Your task to perform on an android device: Show me popular videos on Youtube Image 0: 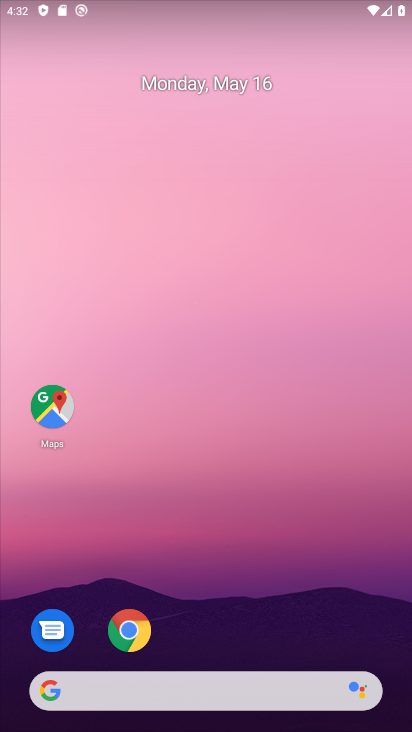
Step 0: drag from (258, 591) to (339, 55)
Your task to perform on an android device: Show me popular videos on Youtube Image 1: 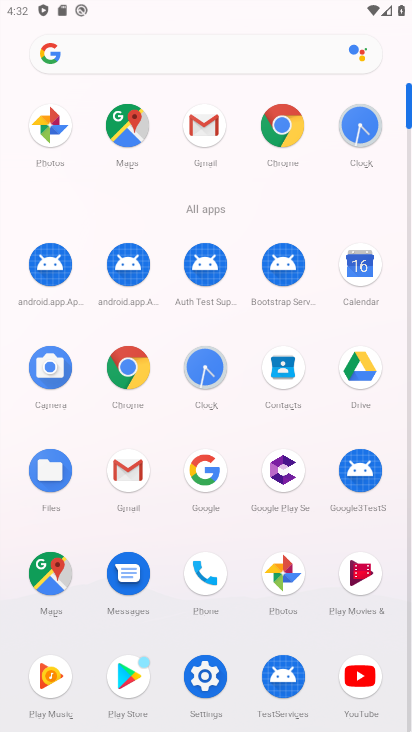
Step 1: drag from (327, 643) to (329, 500)
Your task to perform on an android device: Show me popular videos on Youtube Image 2: 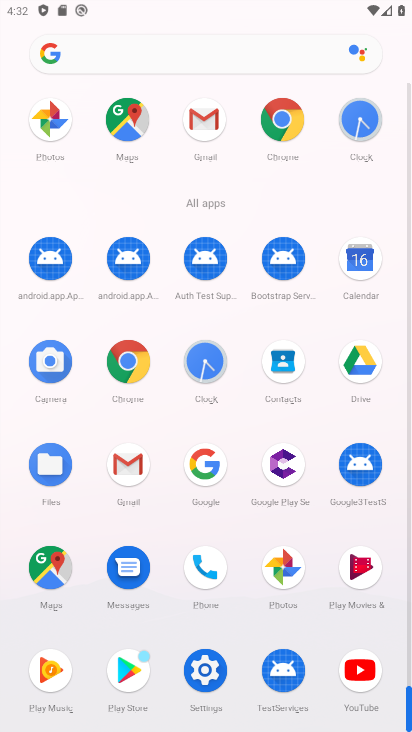
Step 2: click (112, 673)
Your task to perform on an android device: Show me popular videos on Youtube Image 3: 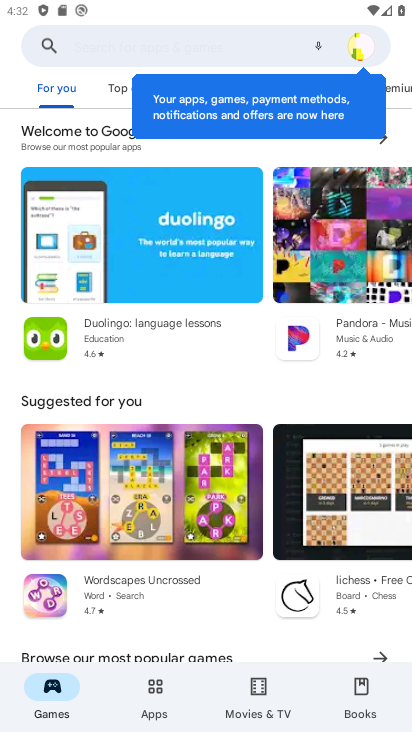
Step 3: click (190, 47)
Your task to perform on an android device: Show me popular videos on Youtube Image 4: 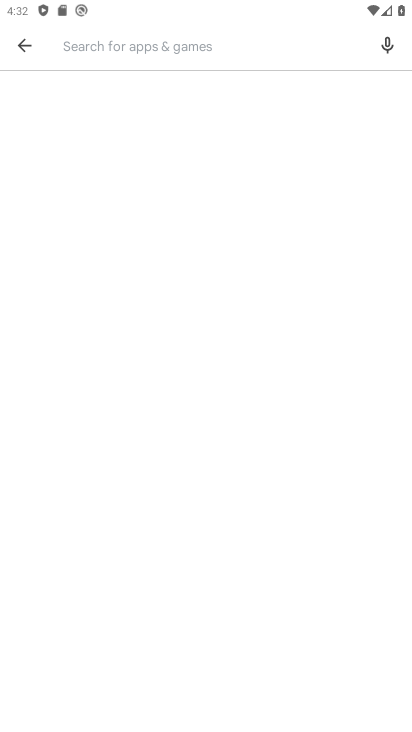
Step 4: click (190, 47)
Your task to perform on an android device: Show me popular videos on Youtube Image 5: 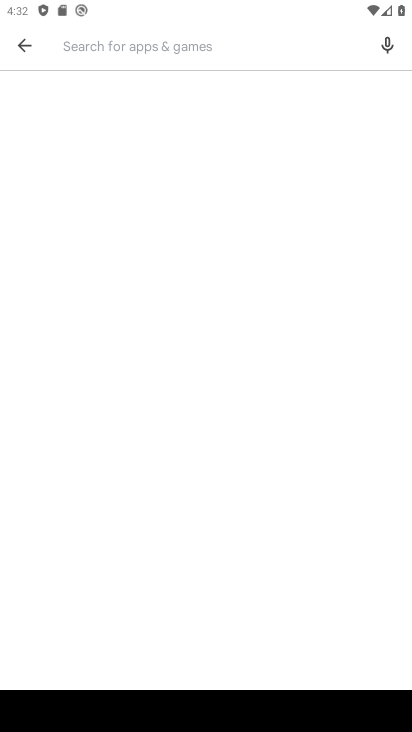
Step 5: type "popular videos"
Your task to perform on an android device: Show me popular videos on Youtube Image 6: 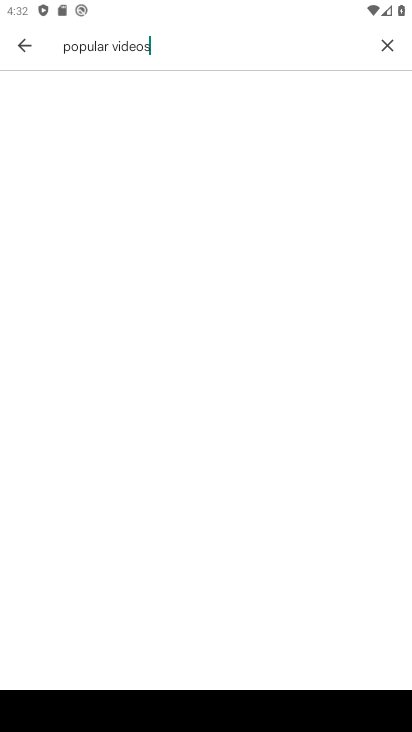
Step 6: type ""
Your task to perform on an android device: Show me popular videos on Youtube Image 7: 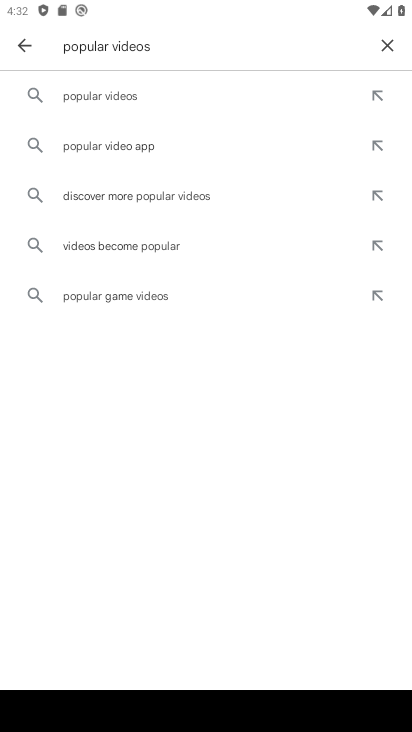
Step 7: click (63, 100)
Your task to perform on an android device: Show me popular videos on Youtube Image 8: 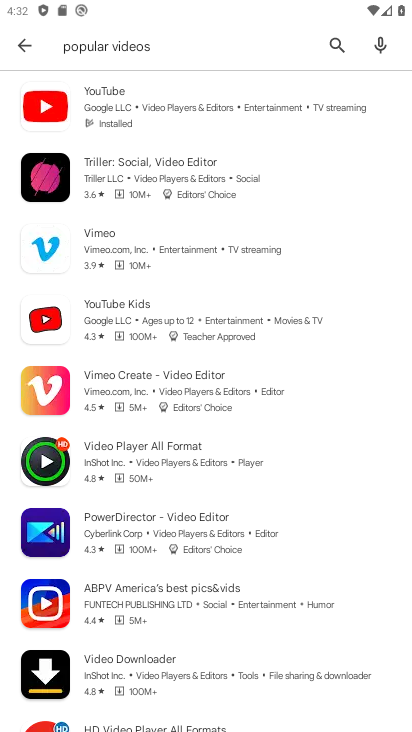
Step 8: drag from (264, 567) to (303, 122)
Your task to perform on an android device: Show me popular videos on Youtube Image 9: 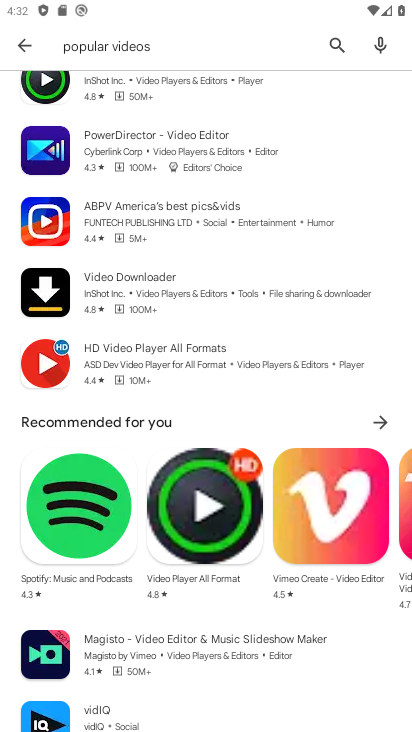
Step 9: press home button
Your task to perform on an android device: Show me popular videos on Youtube Image 10: 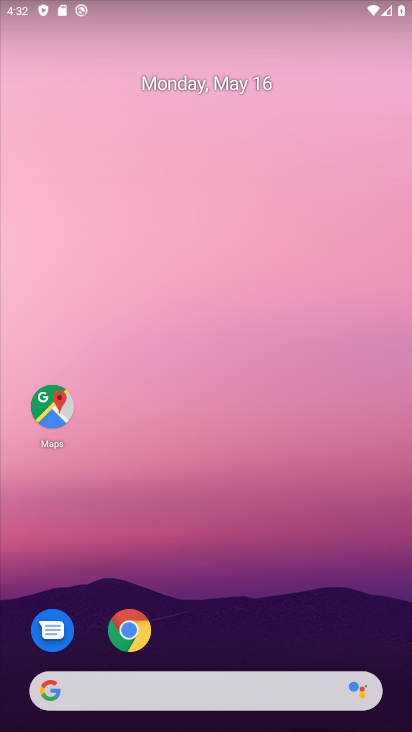
Step 10: drag from (230, 624) to (320, 23)
Your task to perform on an android device: Show me popular videos on Youtube Image 11: 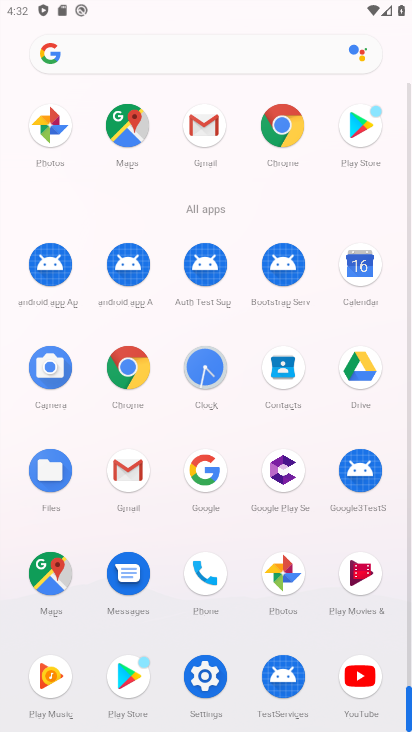
Step 11: click (364, 663)
Your task to perform on an android device: Show me popular videos on Youtube Image 12: 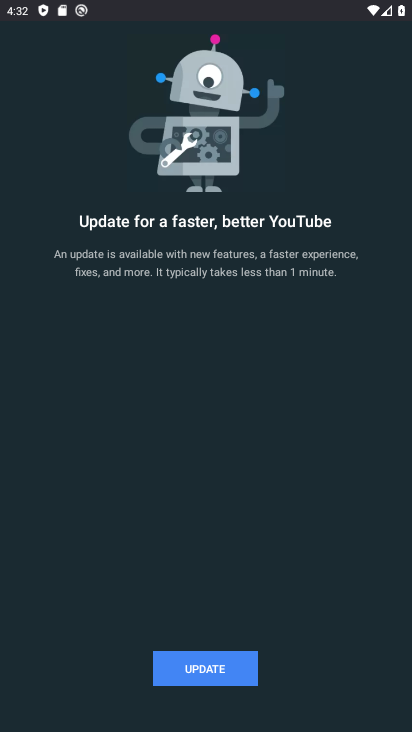
Step 12: click (177, 663)
Your task to perform on an android device: Show me popular videos on Youtube Image 13: 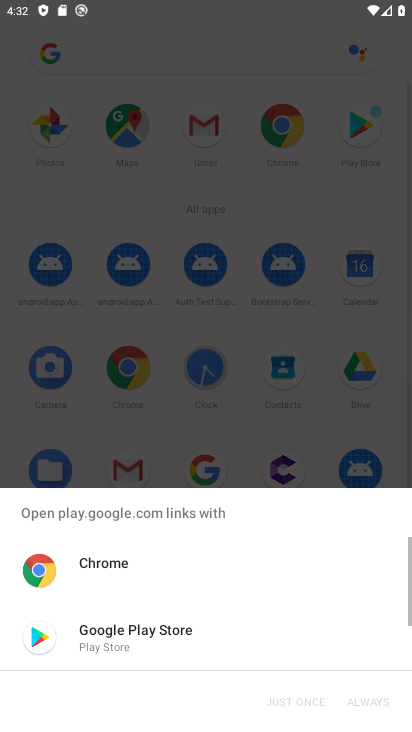
Step 13: click (173, 645)
Your task to perform on an android device: Show me popular videos on Youtube Image 14: 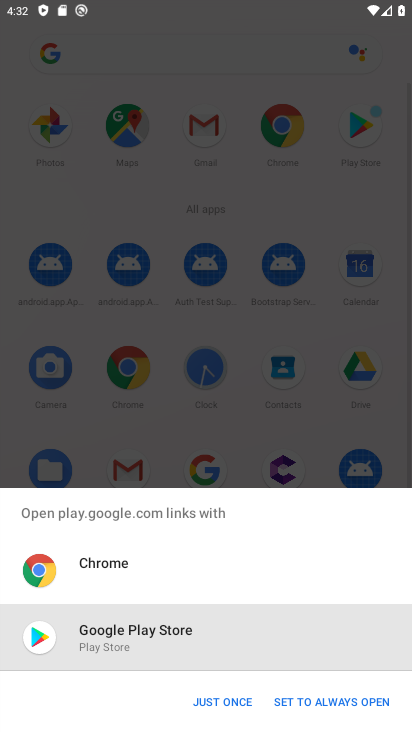
Step 14: click (215, 705)
Your task to perform on an android device: Show me popular videos on Youtube Image 15: 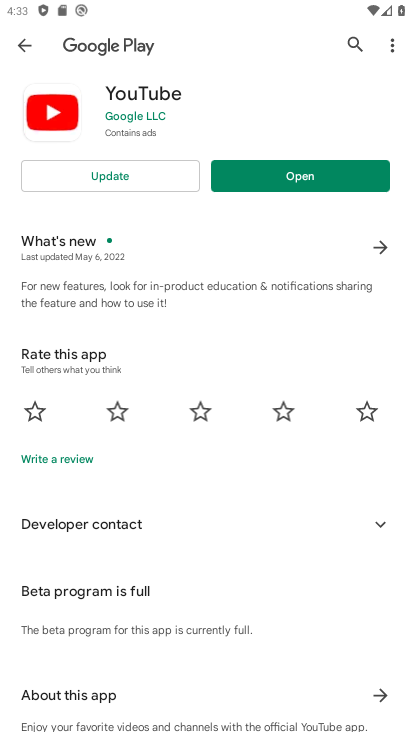
Step 15: click (119, 184)
Your task to perform on an android device: Show me popular videos on Youtube Image 16: 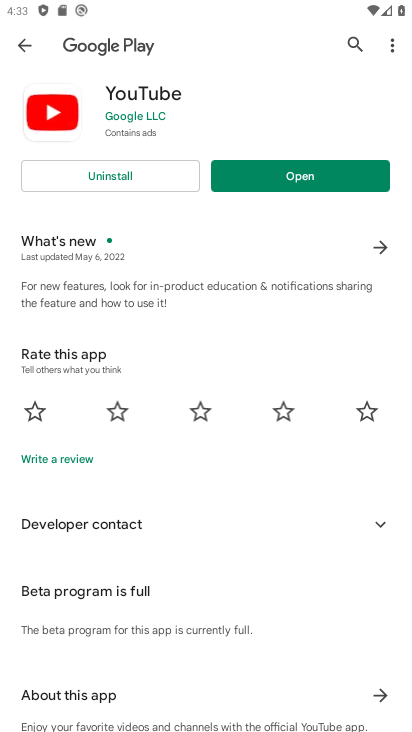
Step 16: click (234, 171)
Your task to perform on an android device: Show me popular videos on Youtube Image 17: 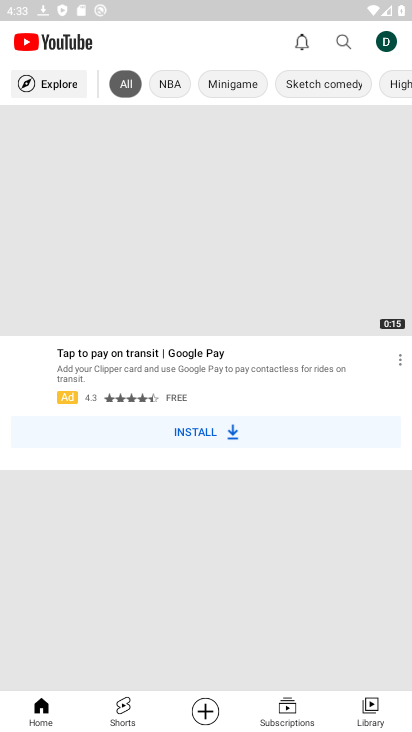
Step 17: click (330, 40)
Your task to perform on an android device: Show me popular videos on Youtube Image 18: 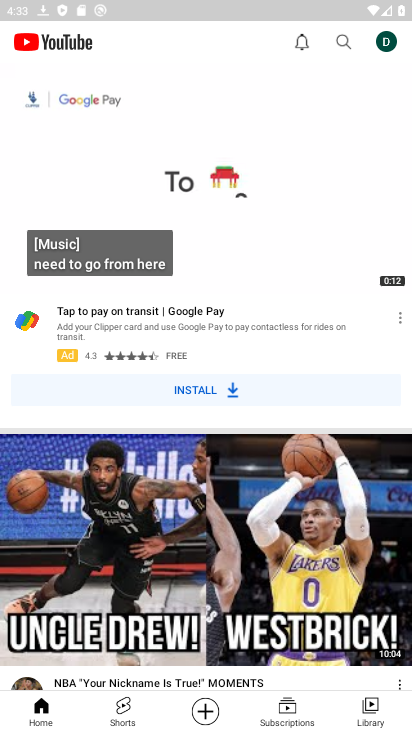
Step 18: click (342, 40)
Your task to perform on an android device: Show me popular videos on Youtube Image 19: 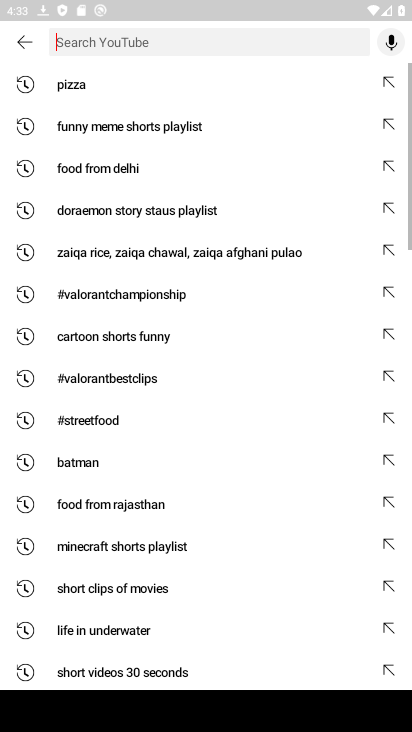
Step 19: click (270, 40)
Your task to perform on an android device: Show me popular videos on Youtube Image 20: 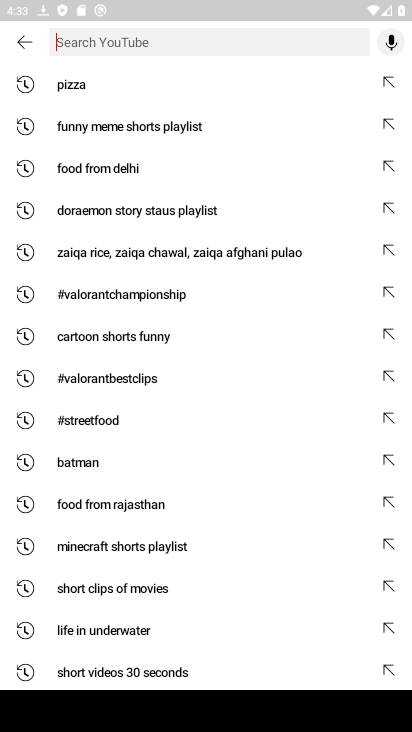
Step 20: click (270, 40)
Your task to perform on an android device: Show me popular videos on Youtube Image 21: 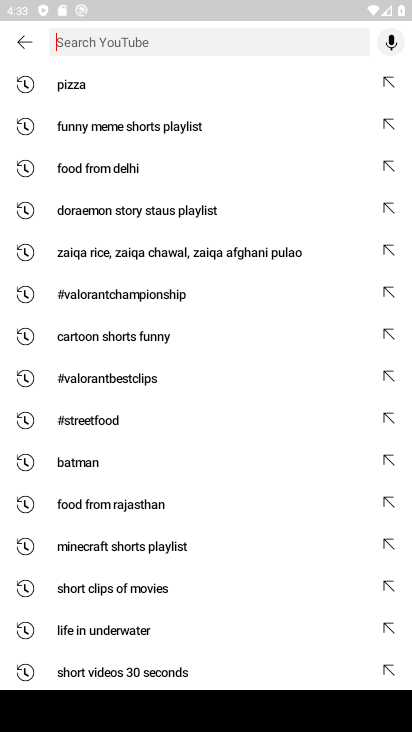
Step 21: type "popular videos"
Your task to perform on an android device: Show me popular videos on Youtube Image 22: 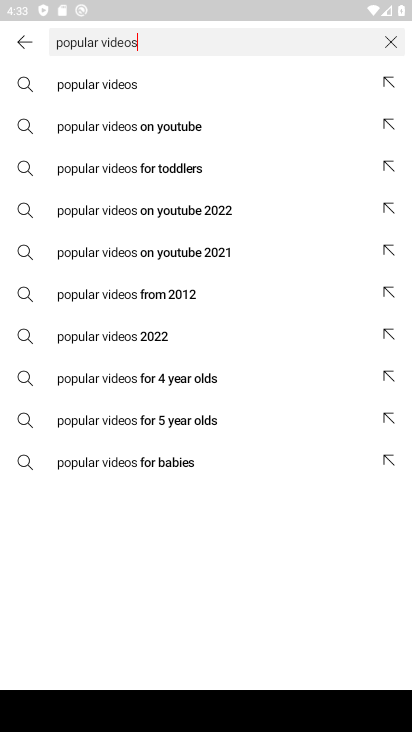
Step 22: type ""
Your task to perform on an android device: Show me popular videos on Youtube Image 23: 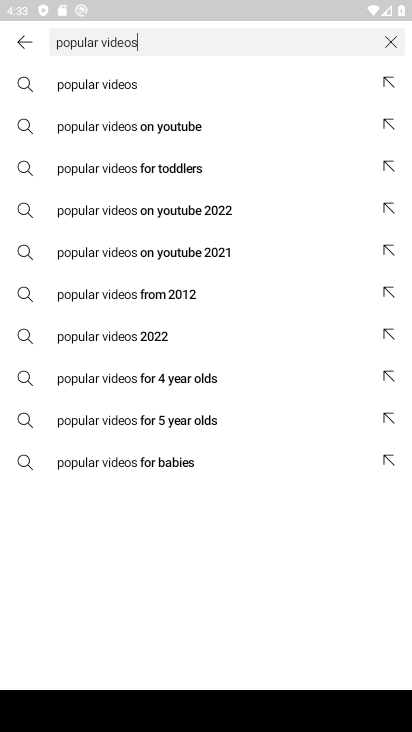
Step 23: click (78, 74)
Your task to perform on an android device: Show me popular videos on Youtube Image 24: 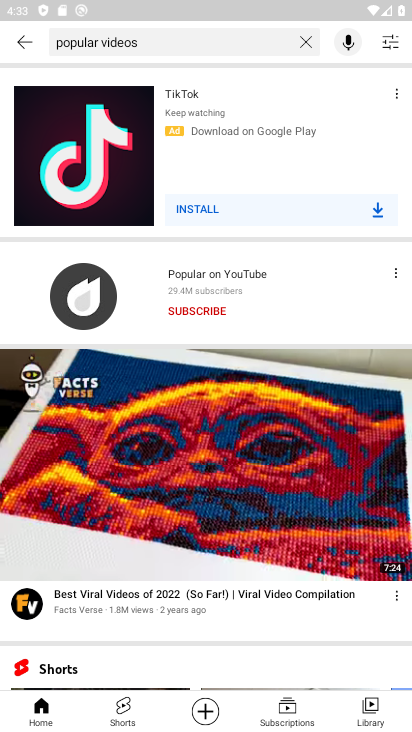
Step 24: task complete